Your task to perform on an android device: Do I have any events today? Image 0: 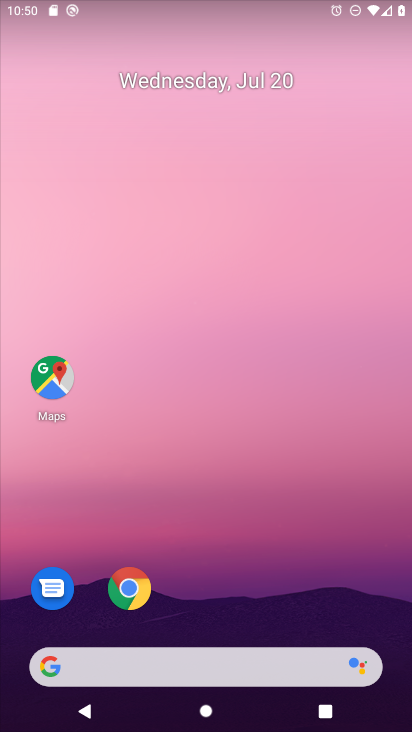
Step 0: click (200, 87)
Your task to perform on an android device: Do I have any events today? Image 1: 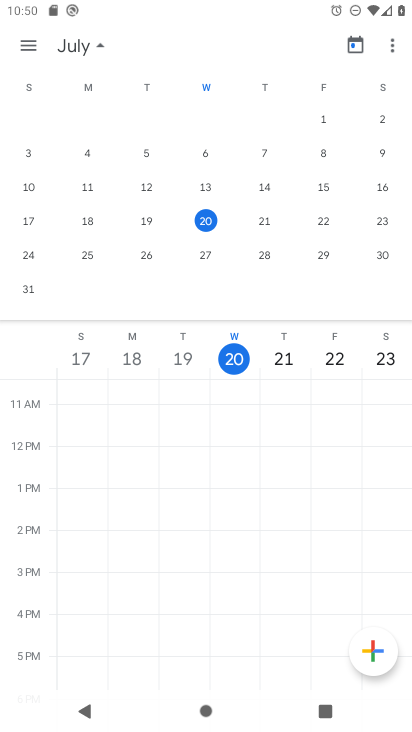
Step 1: task complete